Your task to perform on an android device: Do I have any events today? Image 0: 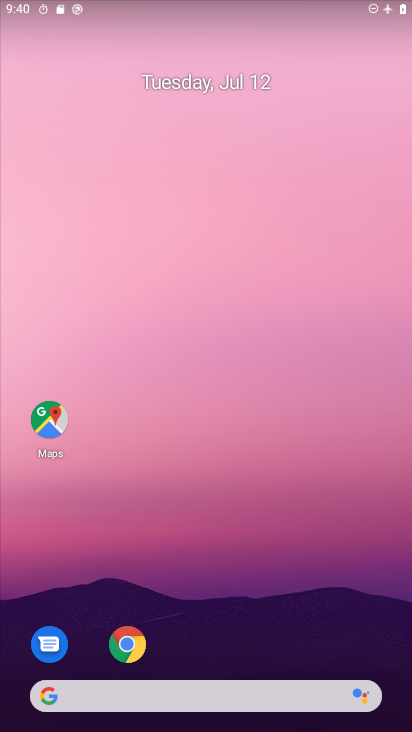
Step 0: drag from (235, 646) to (238, 185)
Your task to perform on an android device: Do I have any events today? Image 1: 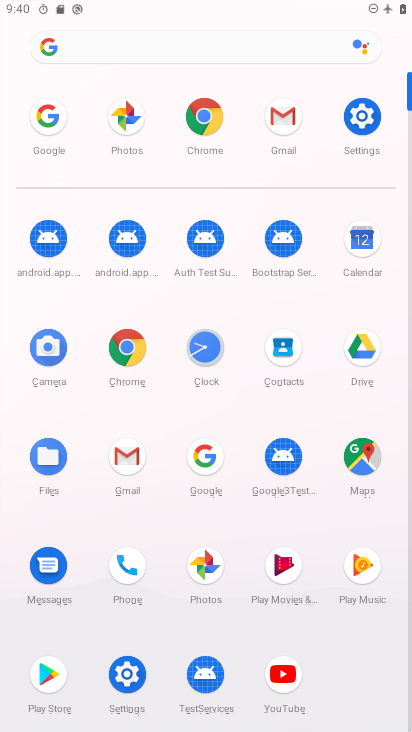
Step 1: click (363, 267)
Your task to perform on an android device: Do I have any events today? Image 2: 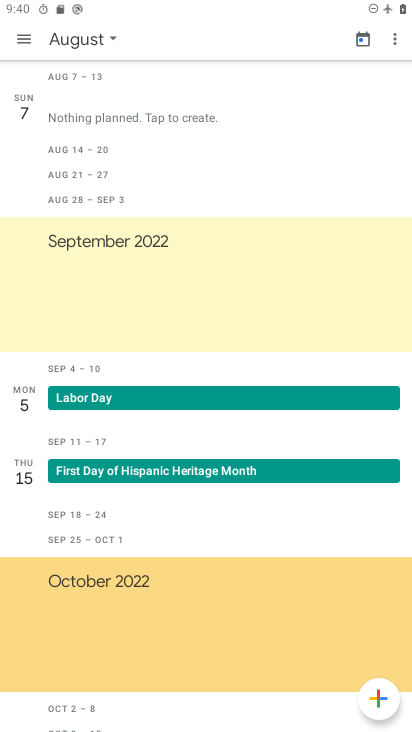
Step 2: click (120, 35)
Your task to perform on an android device: Do I have any events today? Image 3: 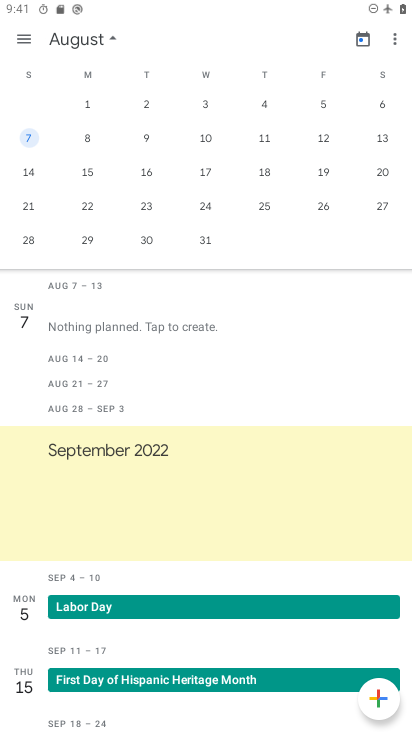
Step 3: drag from (70, 142) to (373, 166)
Your task to perform on an android device: Do I have any events today? Image 4: 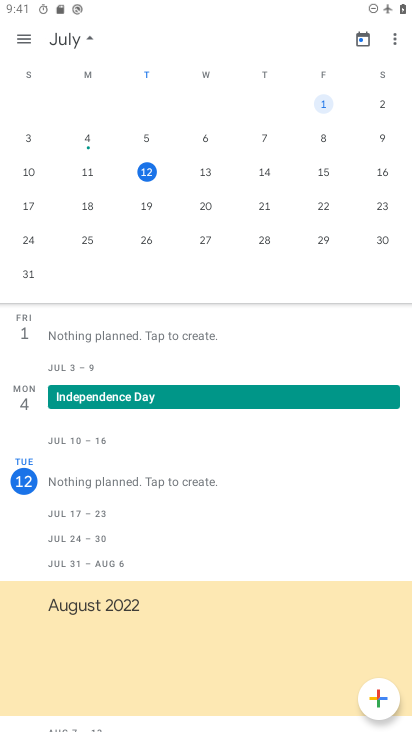
Step 4: click (159, 167)
Your task to perform on an android device: Do I have any events today? Image 5: 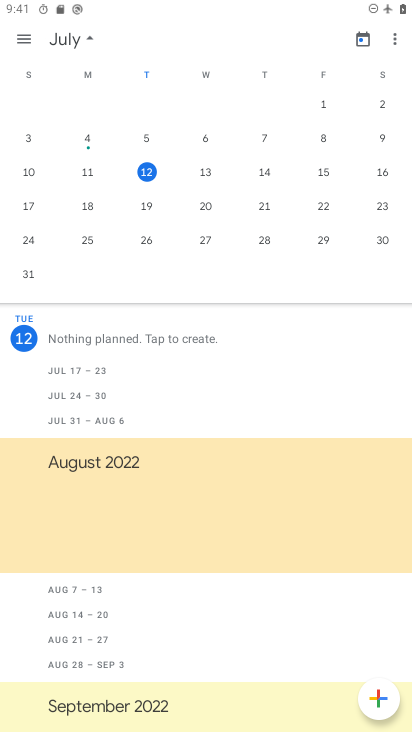
Step 5: task complete